Your task to perform on an android device: check storage Image 0: 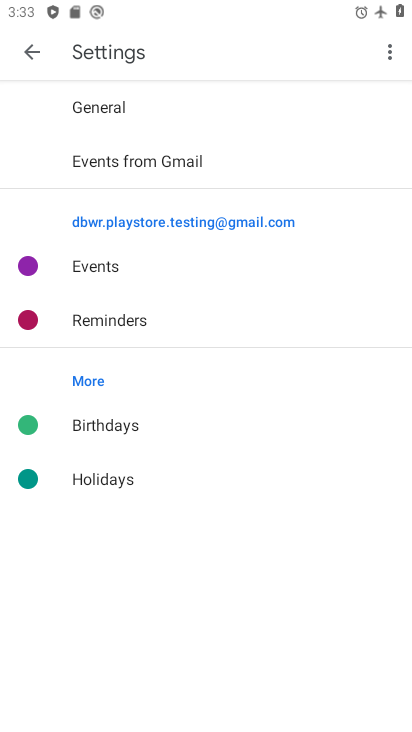
Step 0: press home button
Your task to perform on an android device: check storage Image 1: 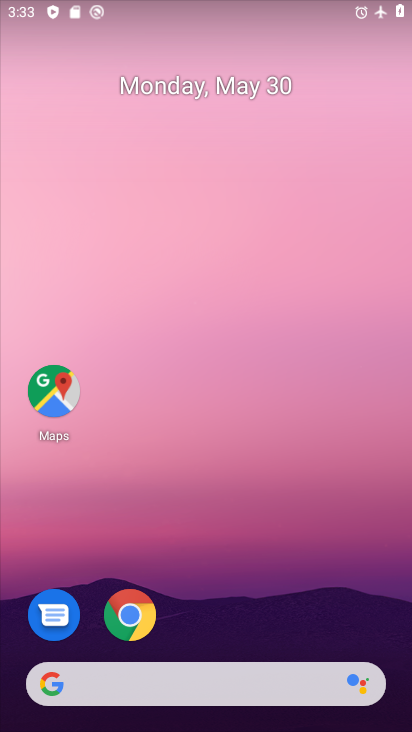
Step 1: drag from (221, 609) to (264, 37)
Your task to perform on an android device: check storage Image 2: 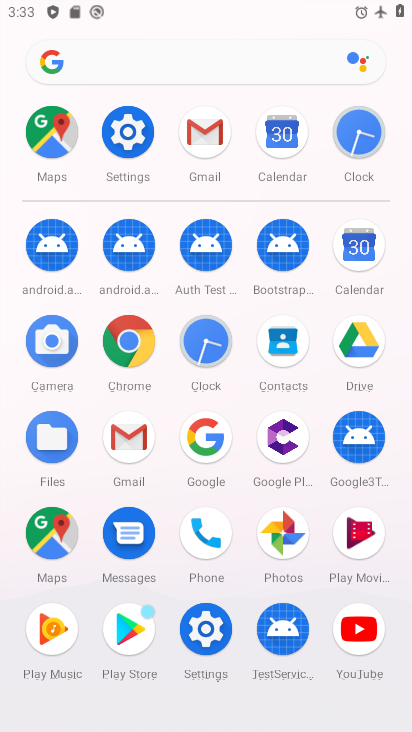
Step 2: click (132, 134)
Your task to perform on an android device: check storage Image 3: 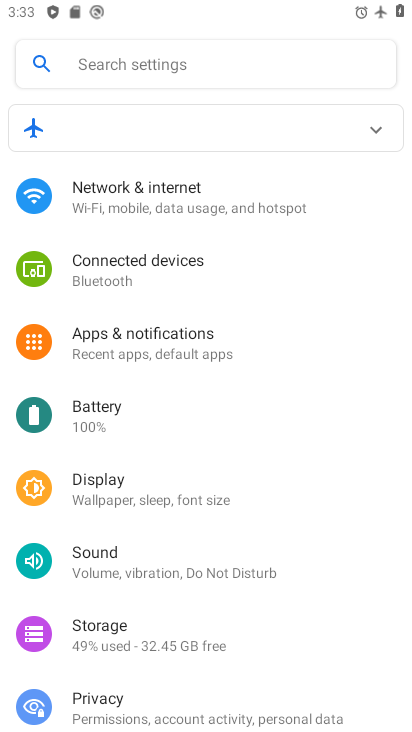
Step 3: click (143, 627)
Your task to perform on an android device: check storage Image 4: 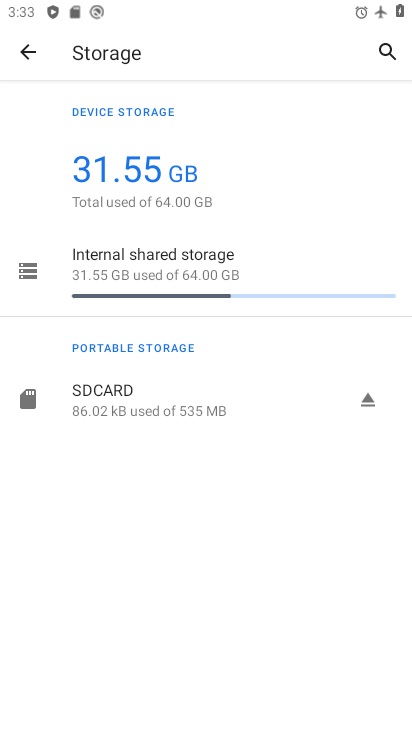
Step 4: task complete